Your task to perform on an android device: install app "Walmart Shopping & Grocery" Image 0: 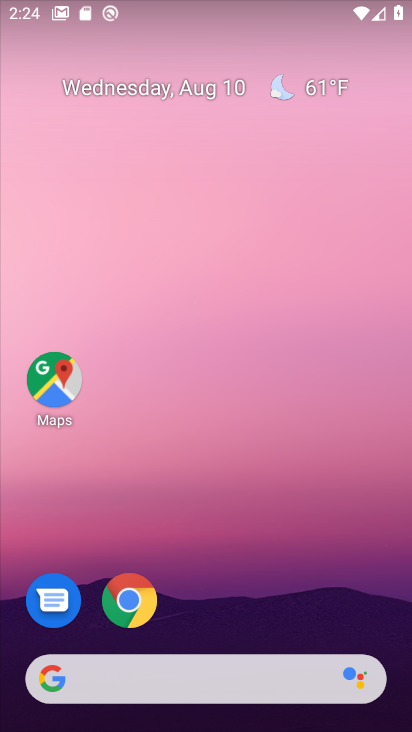
Step 0: drag from (241, 570) to (240, 199)
Your task to perform on an android device: install app "Walmart Shopping & Grocery" Image 1: 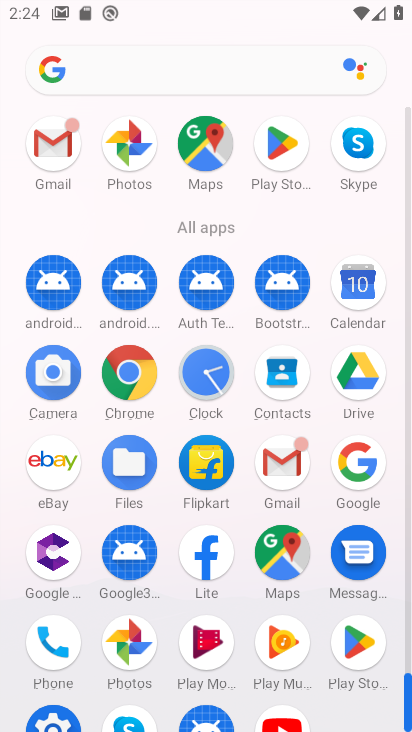
Step 1: click (275, 149)
Your task to perform on an android device: install app "Walmart Shopping & Grocery" Image 2: 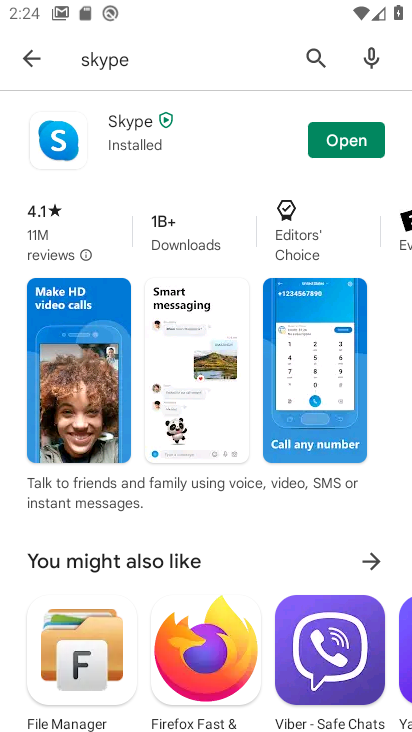
Step 2: click (314, 55)
Your task to perform on an android device: install app "Walmart Shopping & Grocery" Image 3: 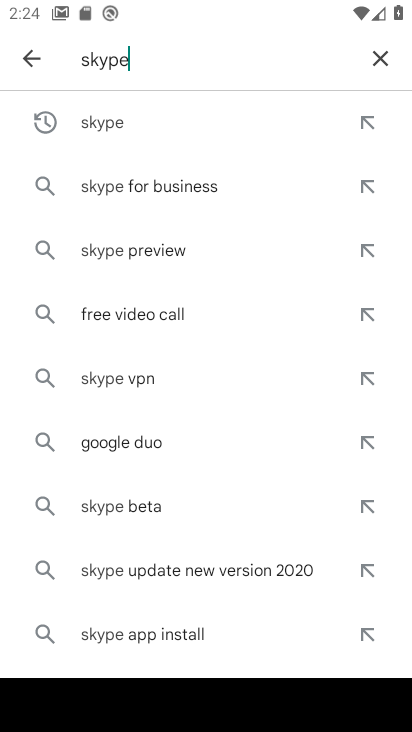
Step 3: click (372, 60)
Your task to perform on an android device: install app "Walmart Shopping & Grocery" Image 4: 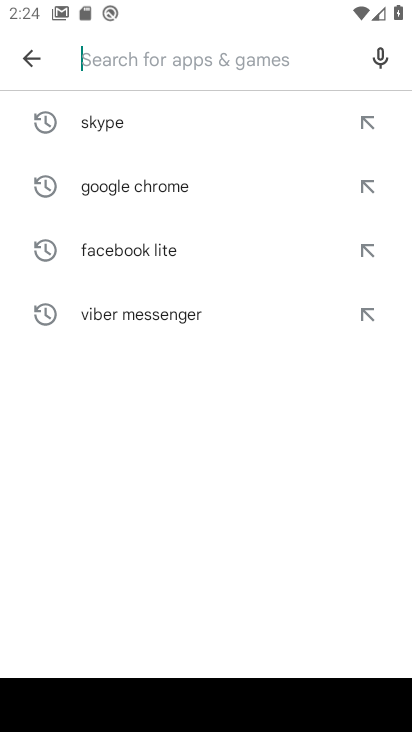
Step 4: click (153, 58)
Your task to perform on an android device: install app "Walmart Shopping & Grocery" Image 5: 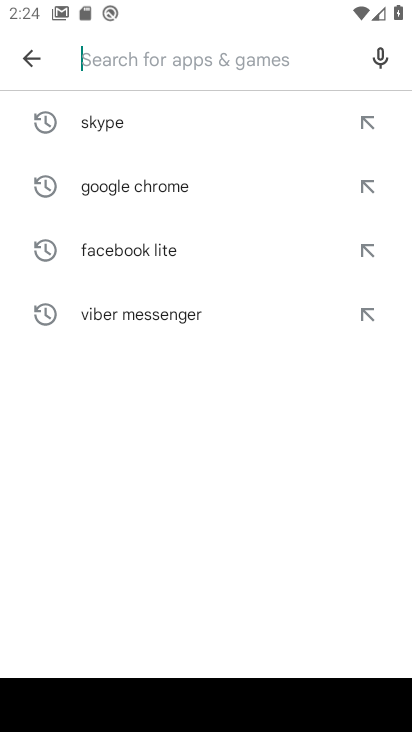
Step 5: click (144, 70)
Your task to perform on an android device: install app "Walmart Shopping & Grocery" Image 6: 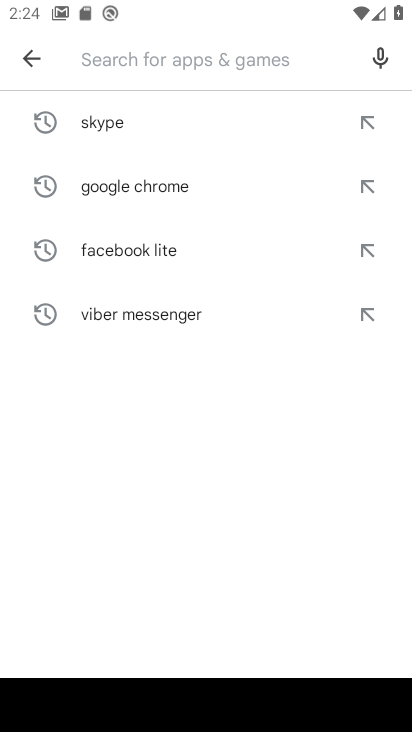
Step 6: type "Walmart Shopping & Grocery"
Your task to perform on an android device: install app "Walmart Shopping & Grocery" Image 7: 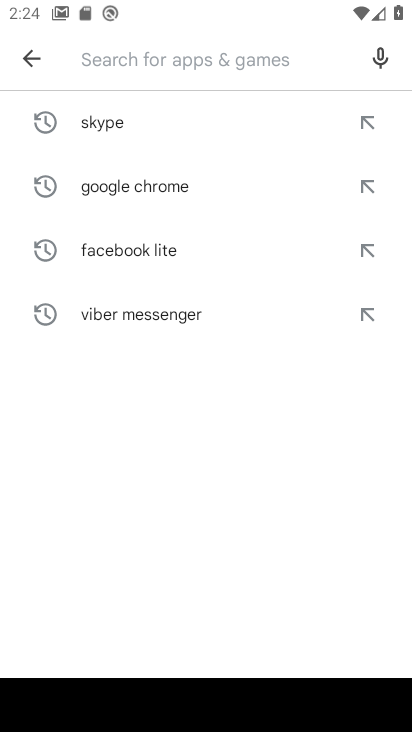
Step 7: click (94, 557)
Your task to perform on an android device: install app "Walmart Shopping & Grocery" Image 8: 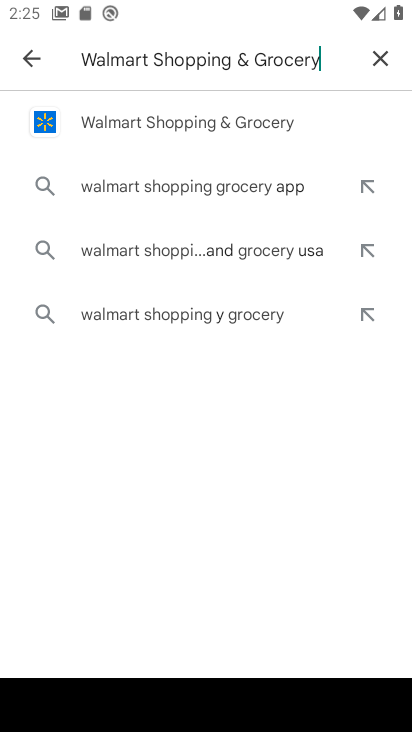
Step 8: click (162, 117)
Your task to perform on an android device: install app "Walmart Shopping & Grocery" Image 9: 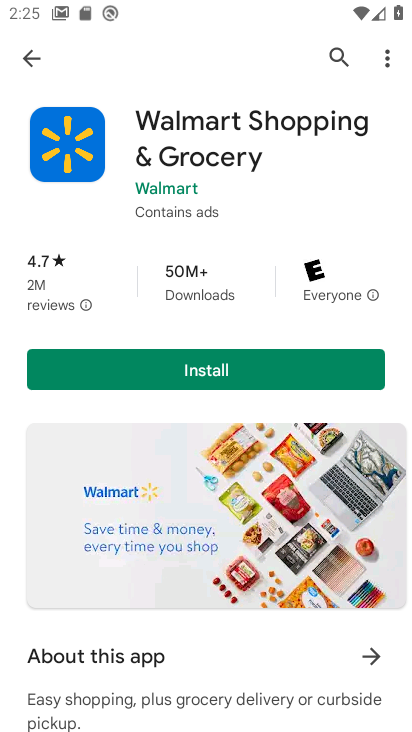
Step 9: click (187, 363)
Your task to perform on an android device: install app "Walmart Shopping & Grocery" Image 10: 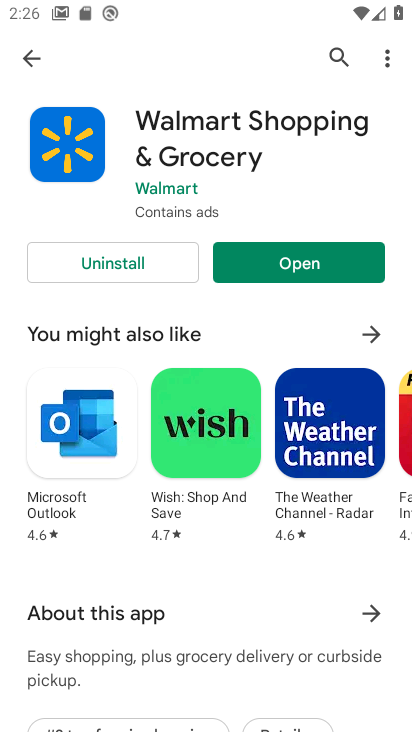
Step 10: click (287, 262)
Your task to perform on an android device: install app "Walmart Shopping & Grocery" Image 11: 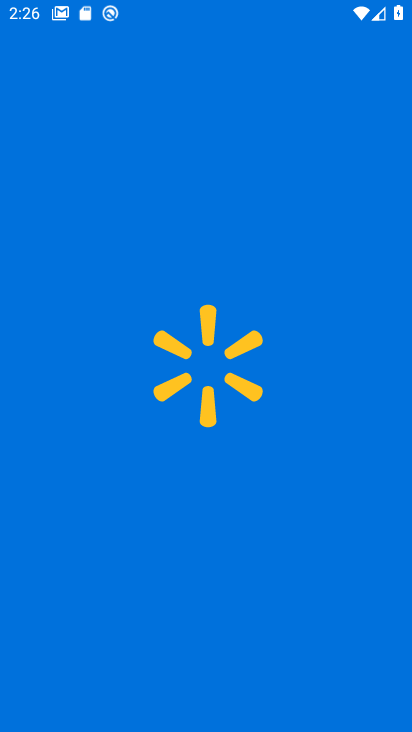
Step 11: task complete